Your task to perform on an android device: Add beats solo 3 to the cart on target.com Image 0: 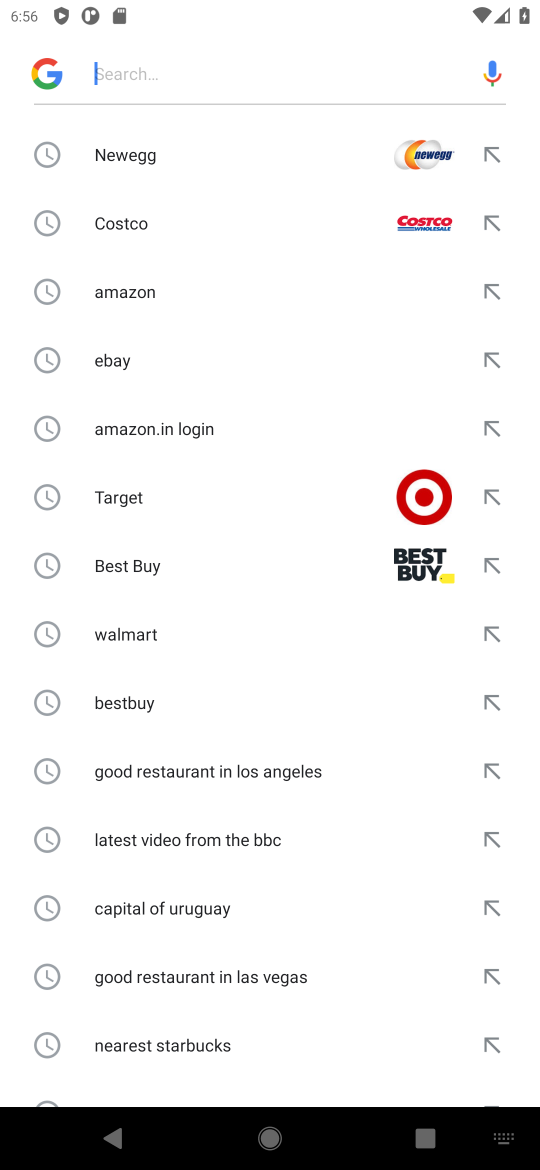
Step 0: click (131, 501)
Your task to perform on an android device: Add beats solo 3 to the cart on target.com Image 1: 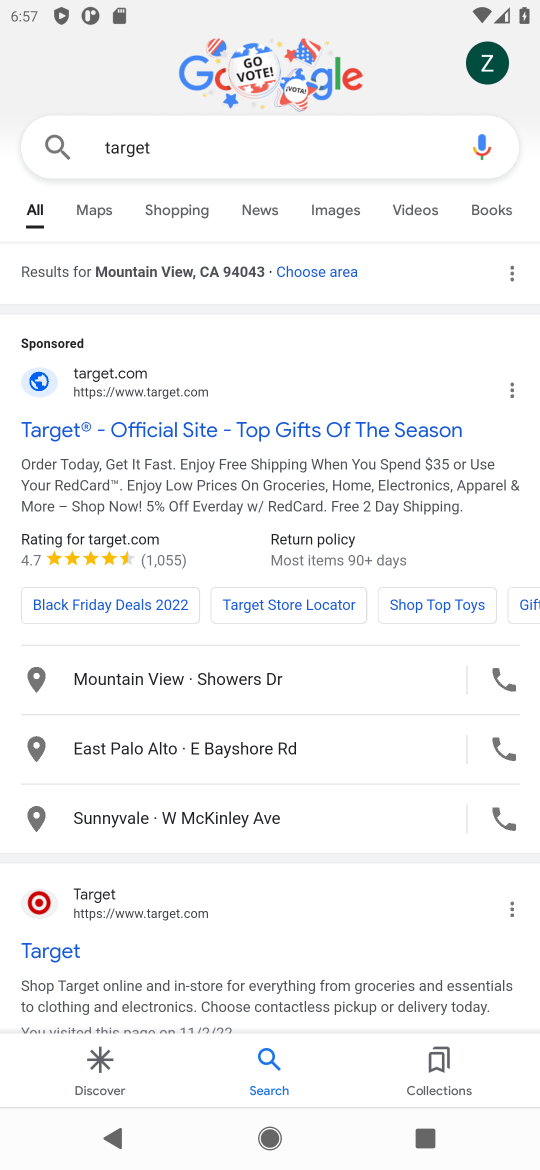
Step 1: click (229, 148)
Your task to perform on an android device: Add beats solo 3 to the cart on target.com Image 2: 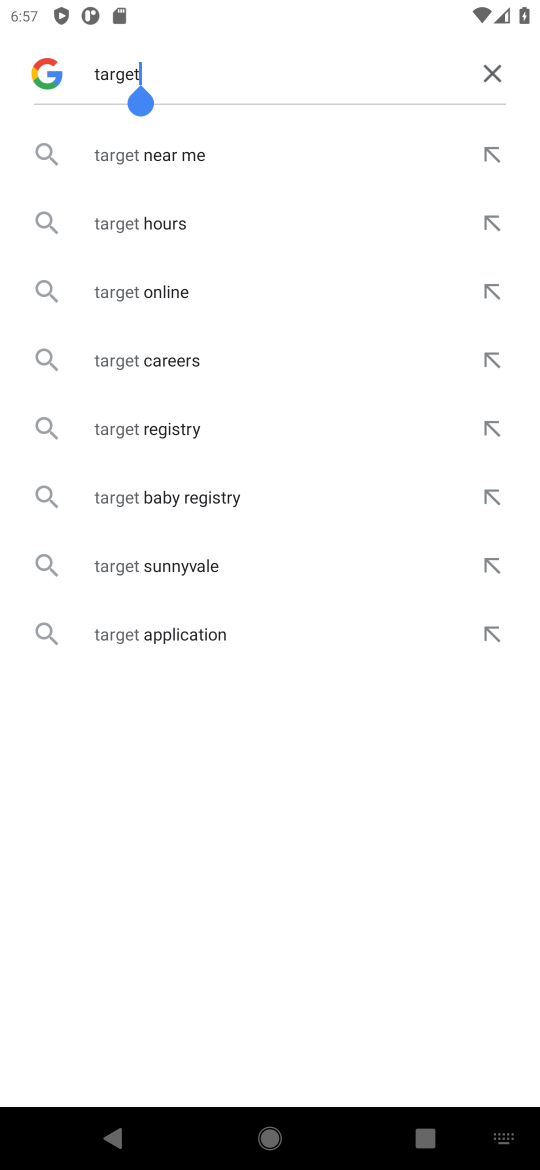
Step 2: click (489, 80)
Your task to perform on an android device: Add beats solo 3 to the cart on target.com Image 3: 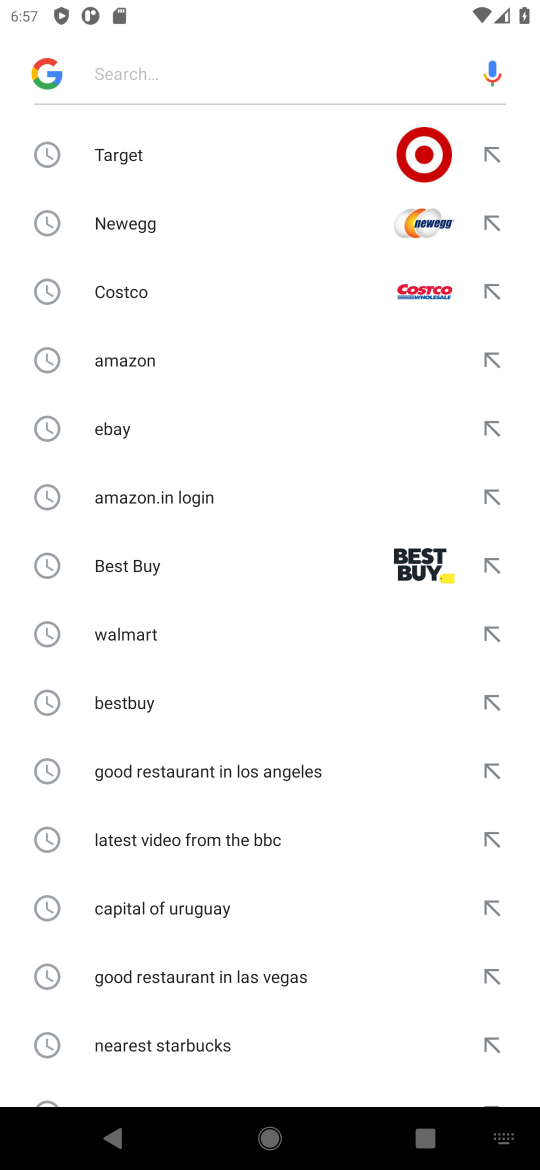
Step 3: type " beats solo 3"
Your task to perform on an android device: Add beats solo 3 to the cart on target.com Image 4: 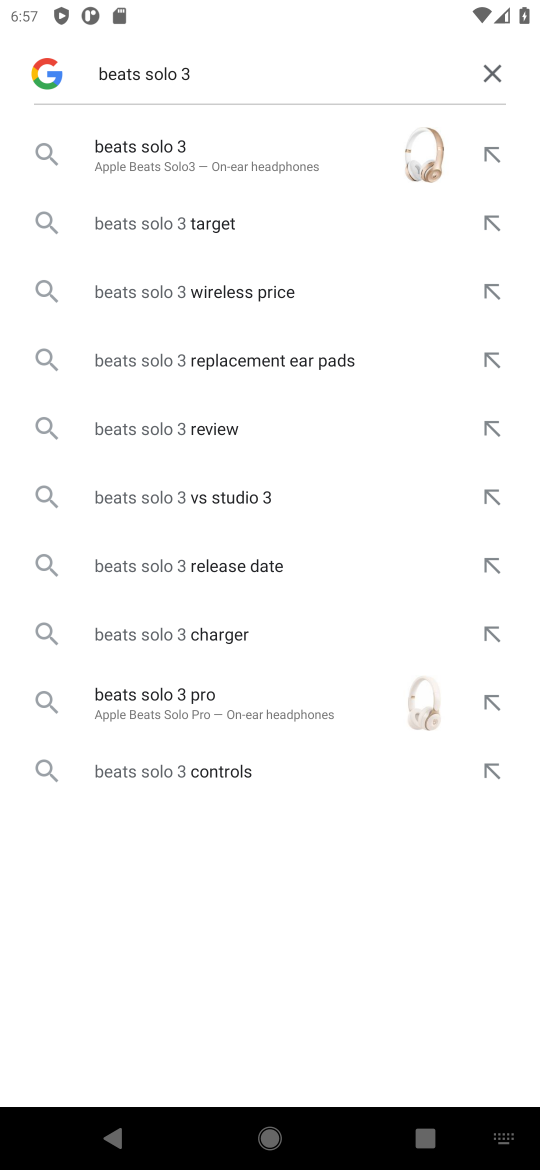
Step 4: type ""
Your task to perform on an android device: Add beats solo 3 to the cart on target.com Image 5: 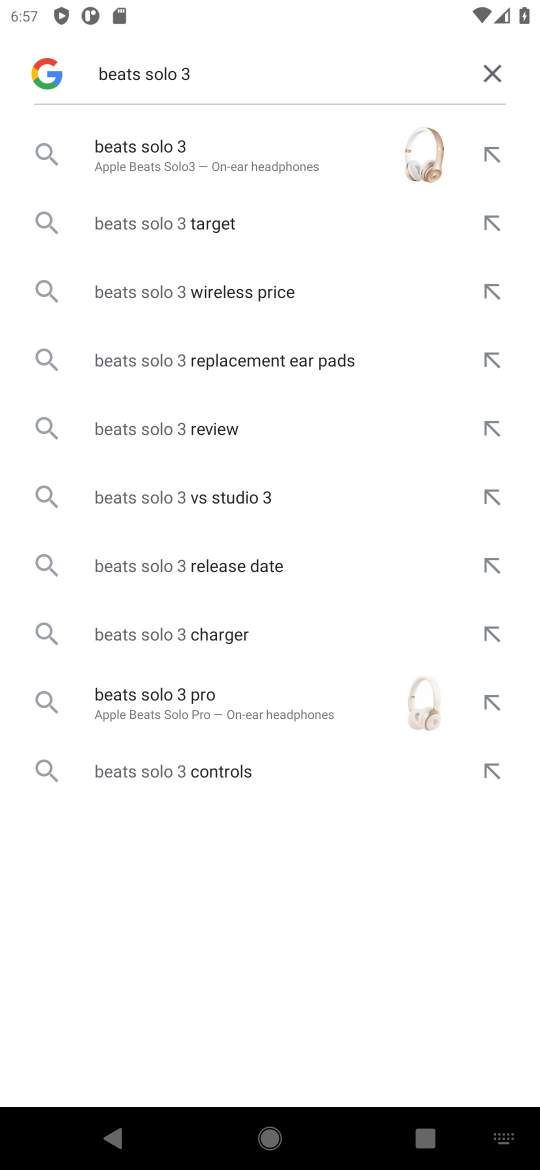
Step 5: click (272, 169)
Your task to perform on an android device: Add beats solo 3 to the cart on target.com Image 6: 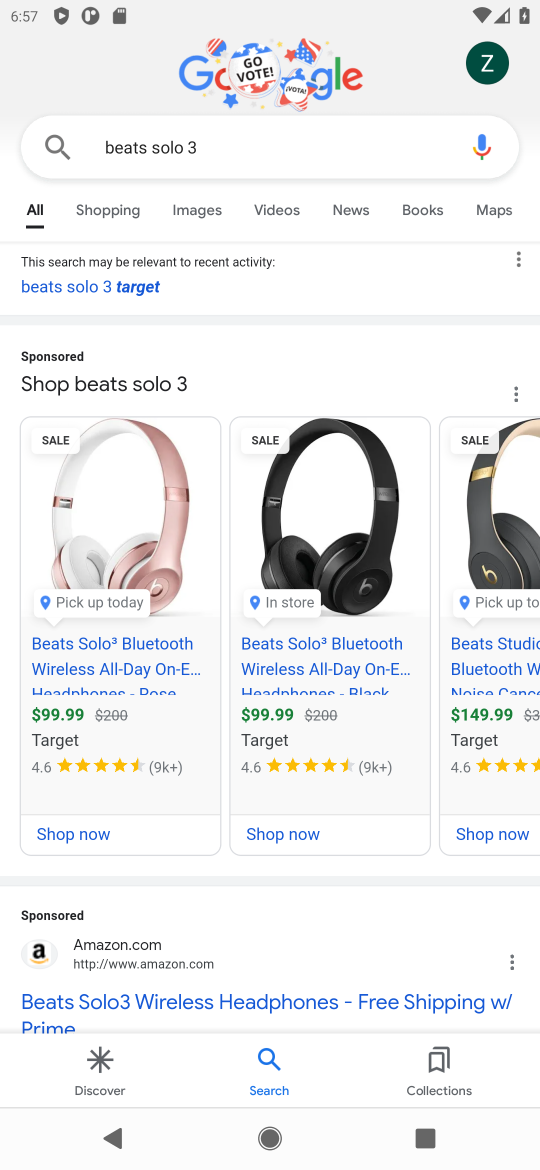
Step 6: click (91, 670)
Your task to perform on an android device: Add beats solo 3 to the cart on target.com Image 7: 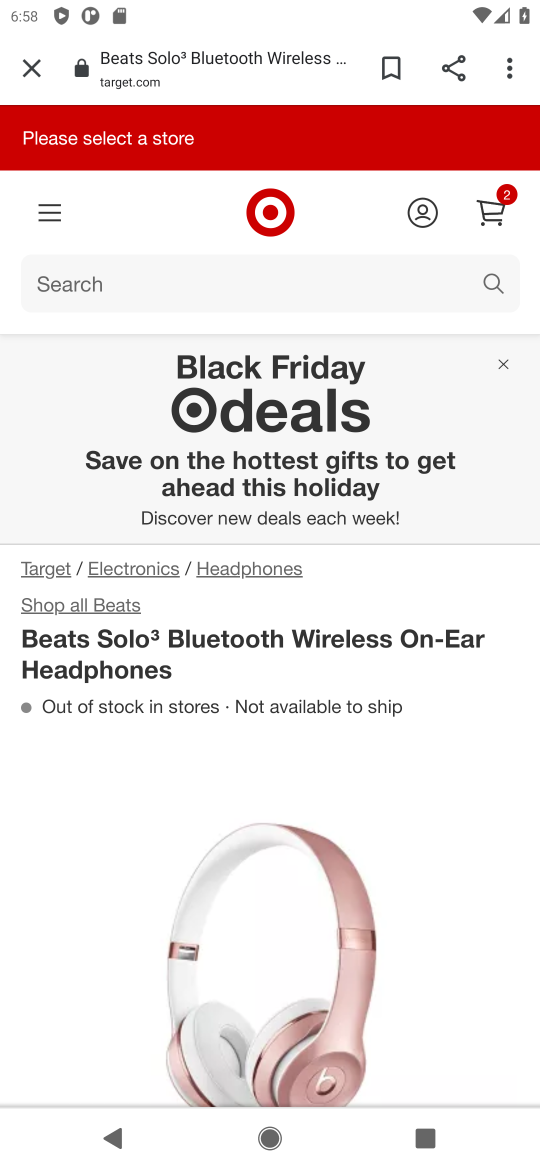
Step 7: drag from (99, 636) to (353, 188)
Your task to perform on an android device: Add beats solo 3 to the cart on target.com Image 8: 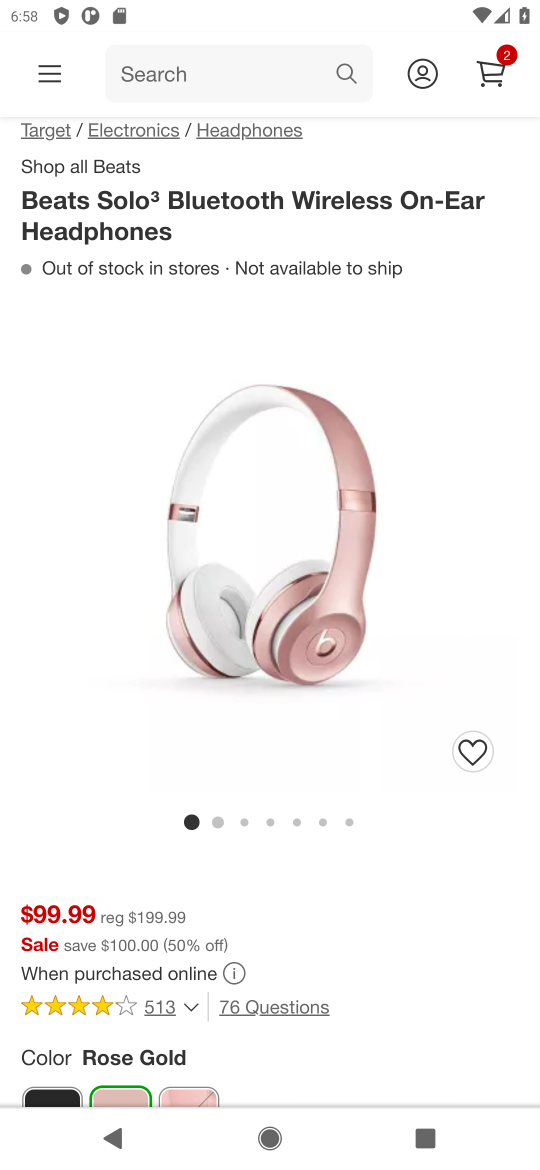
Step 8: drag from (249, 1035) to (238, 515)
Your task to perform on an android device: Add beats solo 3 to the cart on target.com Image 9: 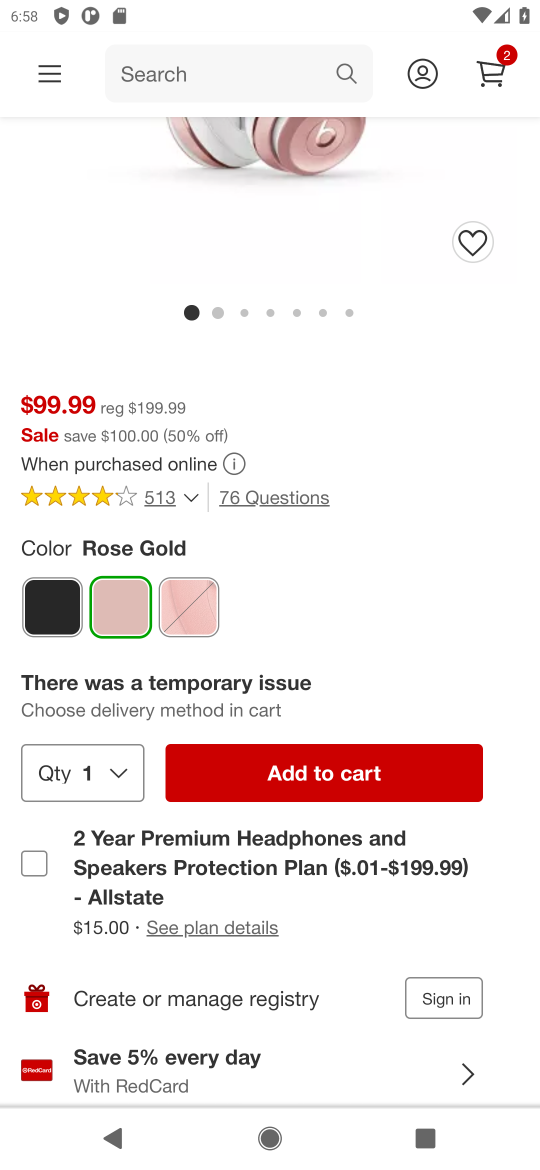
Step 9: click (282, 755)
Your task to perform on an android device: Add beats solo 3 to the cart on target.com Image 10: 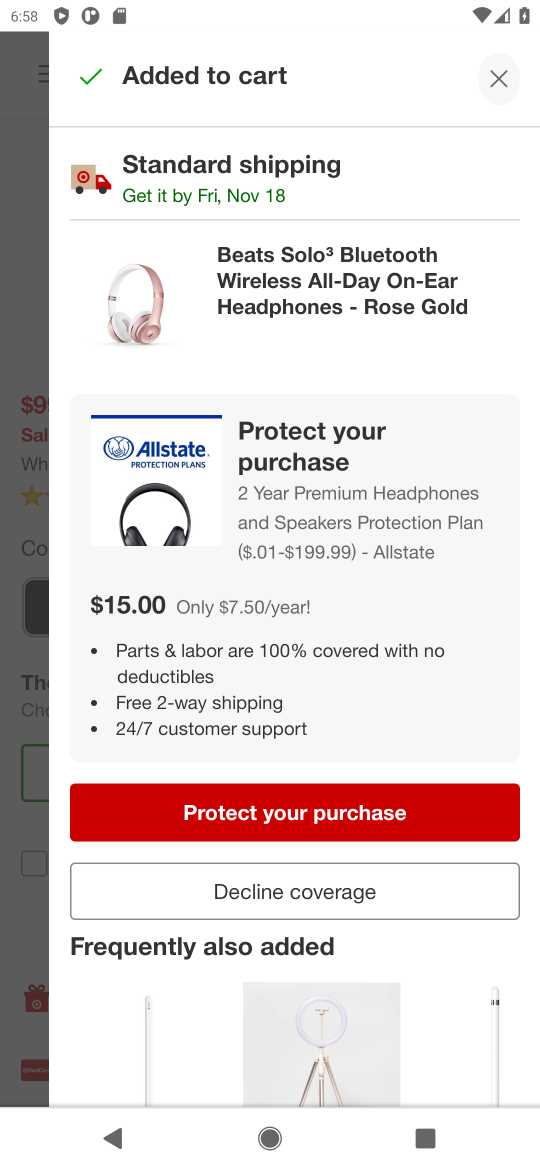
Step 10: click (491, 80)
Your task to perform on an android device: Add beats solo 3 to the cart on target.com Image 11: 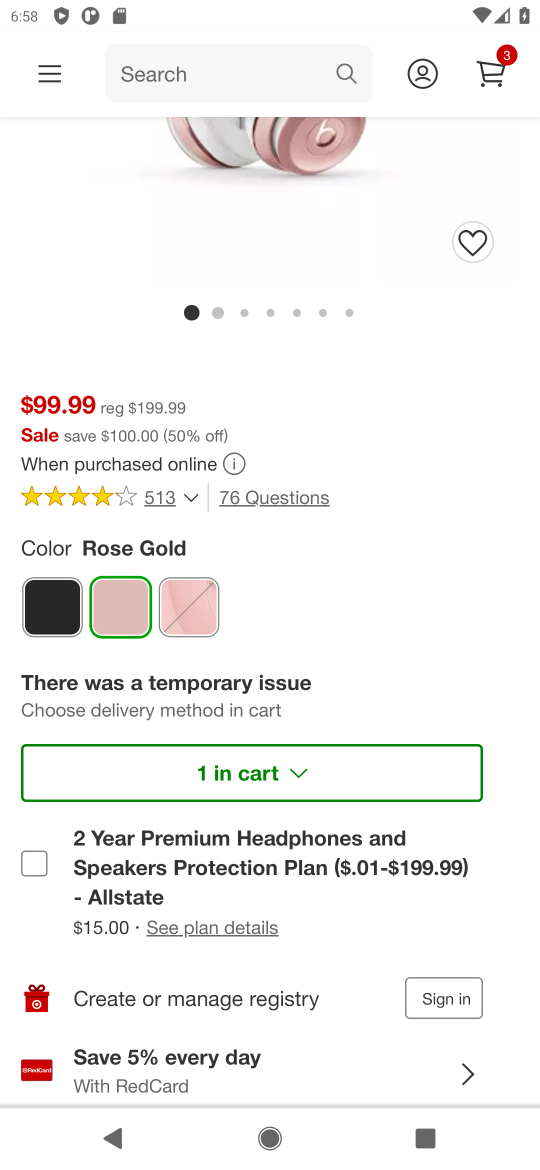
Step 11: task complete